Your task to perform on an android device: open app "Mercado Libre" (install if not already installed) and go to login screen Image 0: 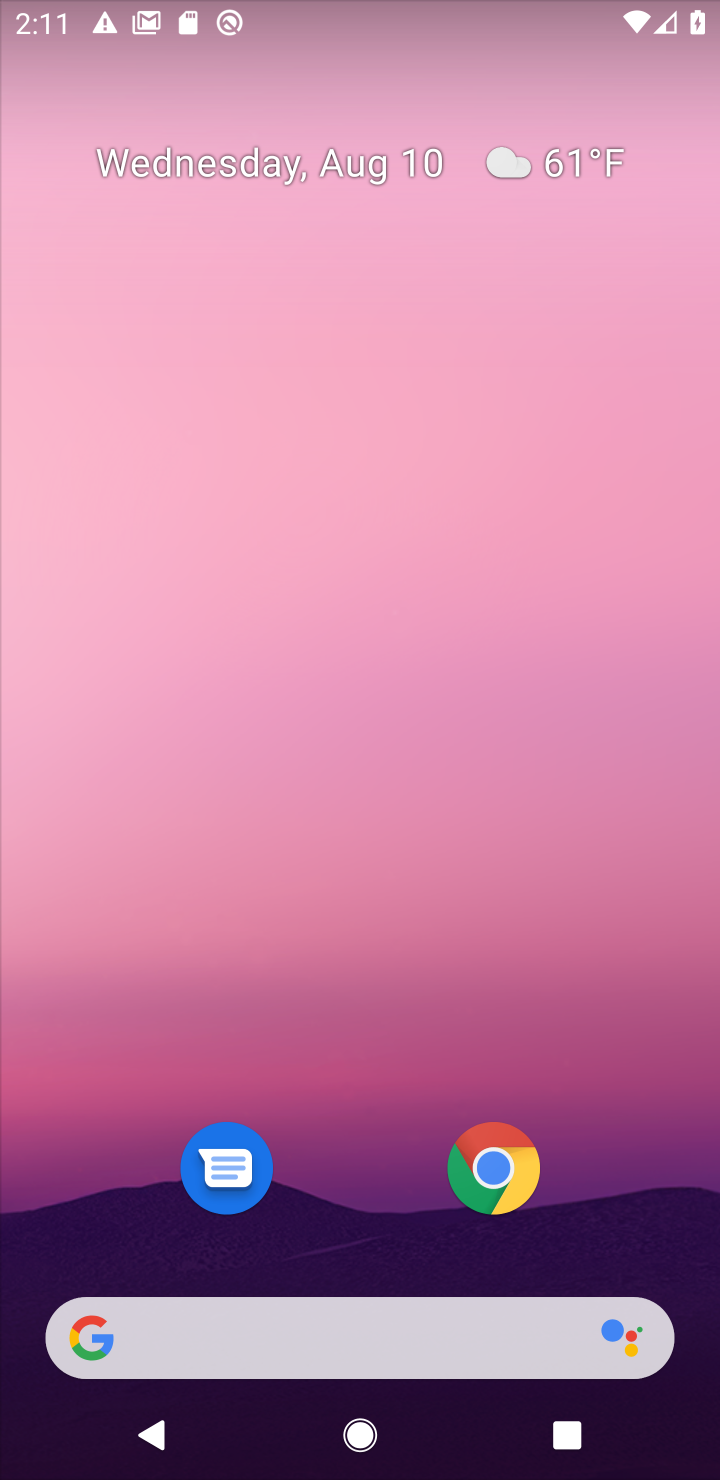
Step 0: drag from (292, 1336) to (189, 322)
Your task to perform on an android device: open app "Mercado Libre" (install if not already installed) and go to login screen Image 1: 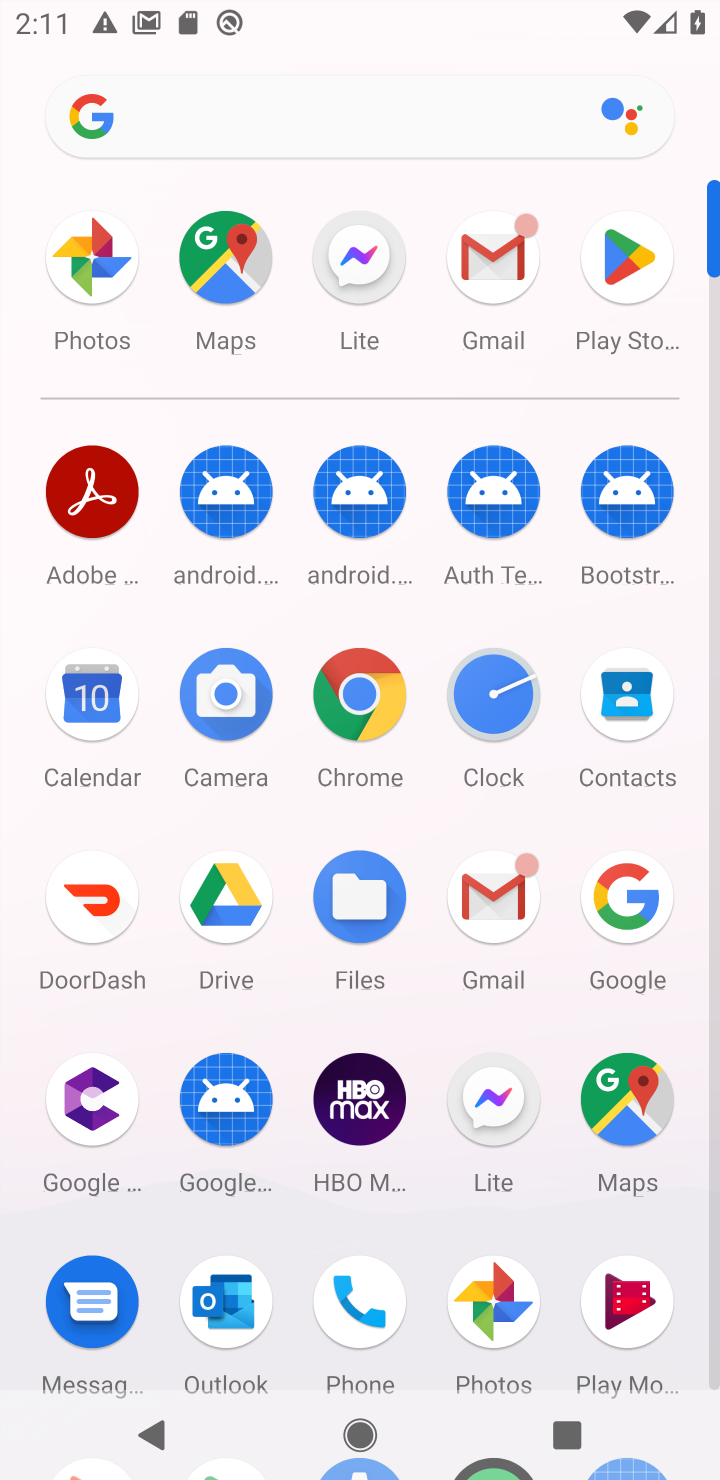
Step 1: click (630, 265)
Your task to perform on an android device: open app "Mercado Libre" (install if not already installed) and go to login screen Image 2: 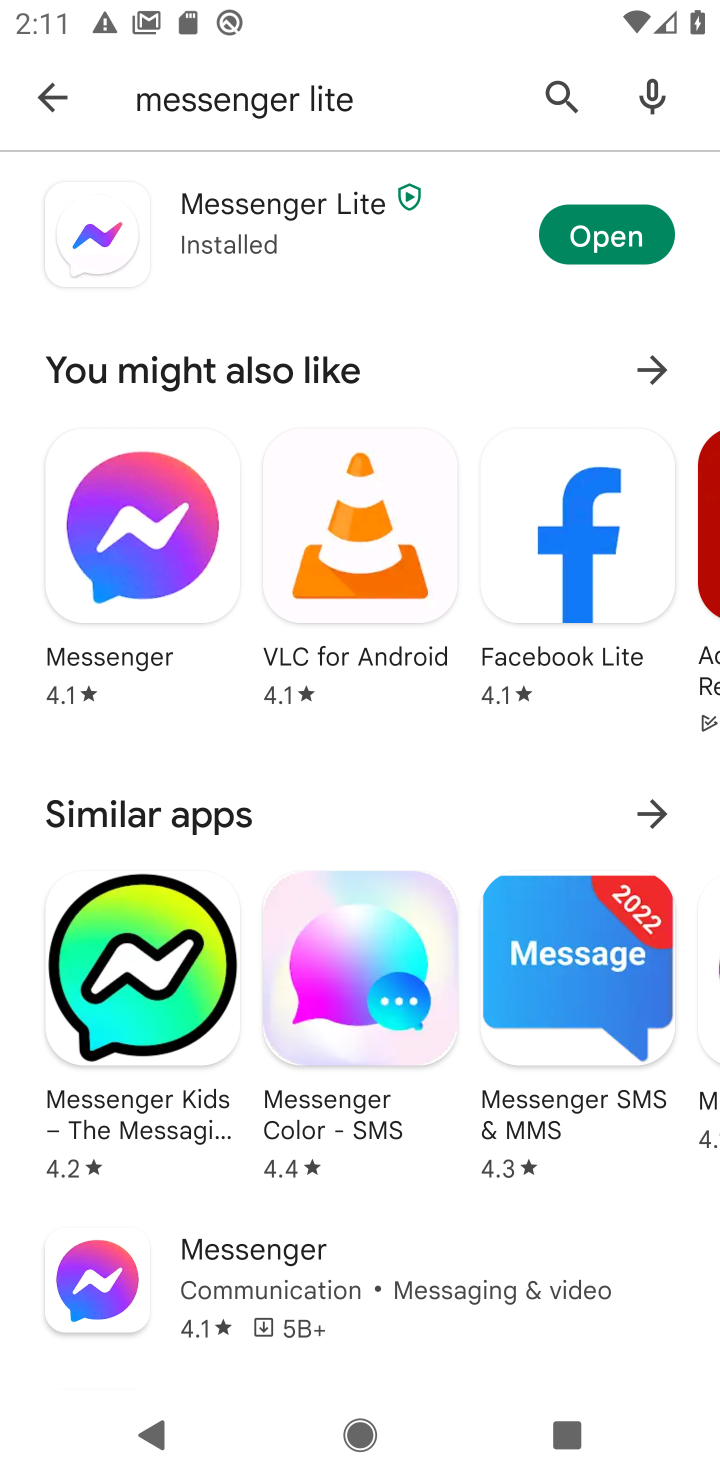
Step 2: click (555, 91)
Your task to perform on an android device: open app "Mercado Libre" (install if not already installed) and go to login screen Image 3: 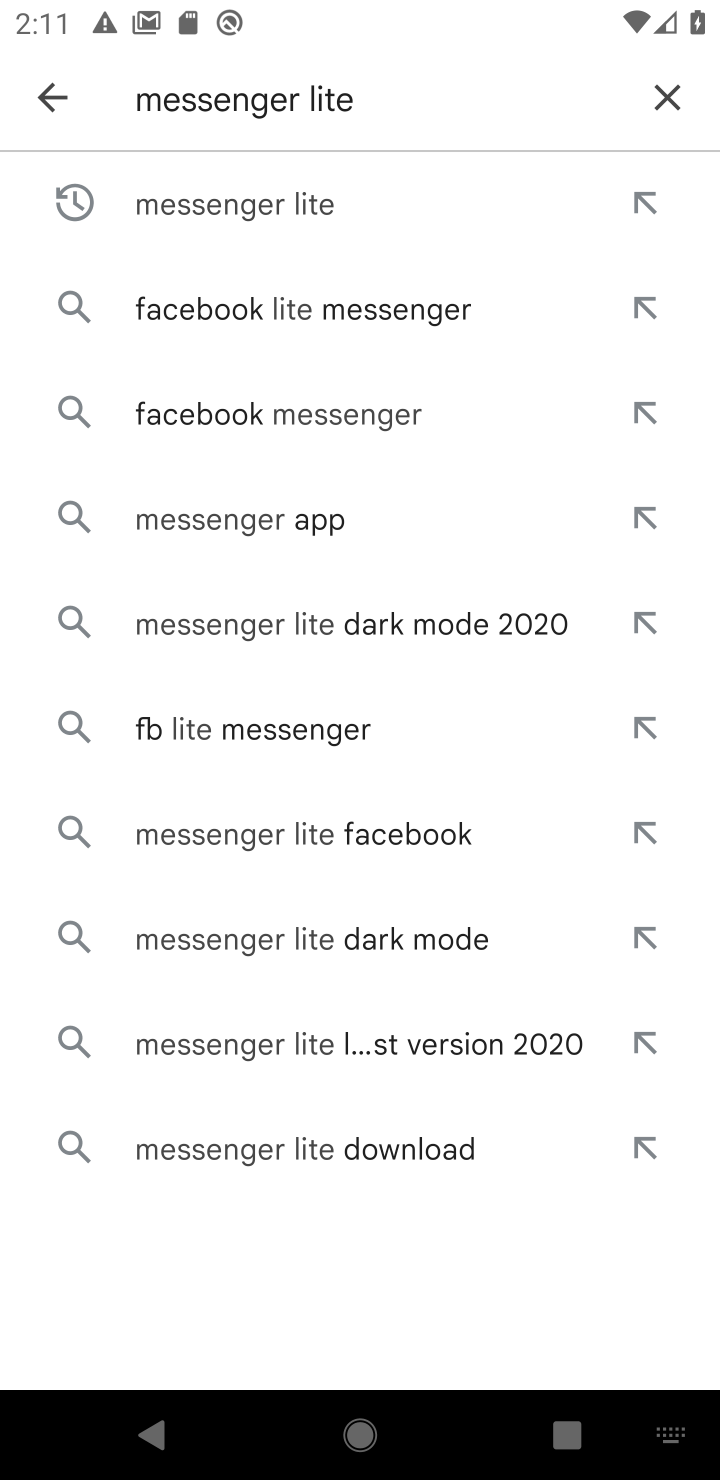
Step 3: click (656, 92)
Your task to perform on an android device: open app "Mercado Libre" (install if not already installed) and go to login screen Image 4: 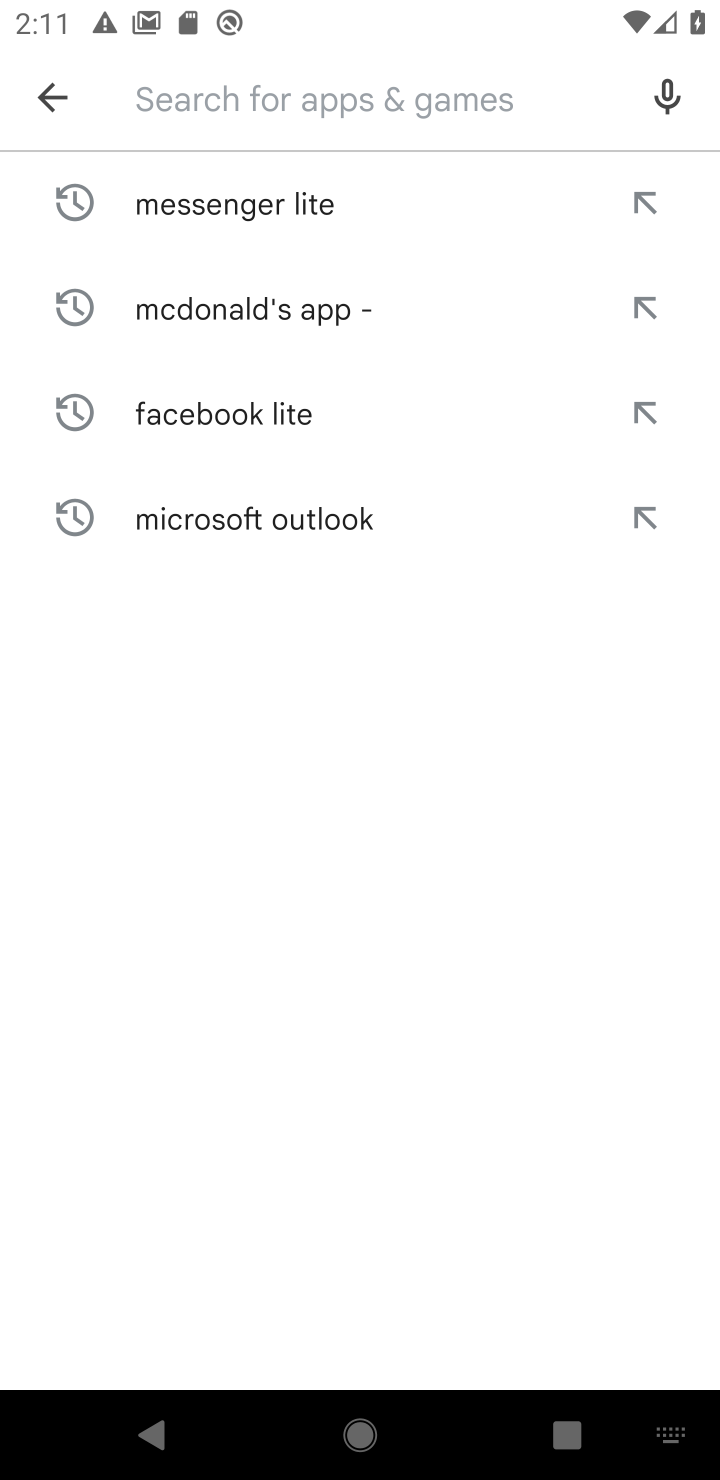
Step 4: click (361, 107)
Your task to perform on an android device: open app "Mercado Libre" (install if not already installed) and go to login screen Image 5: 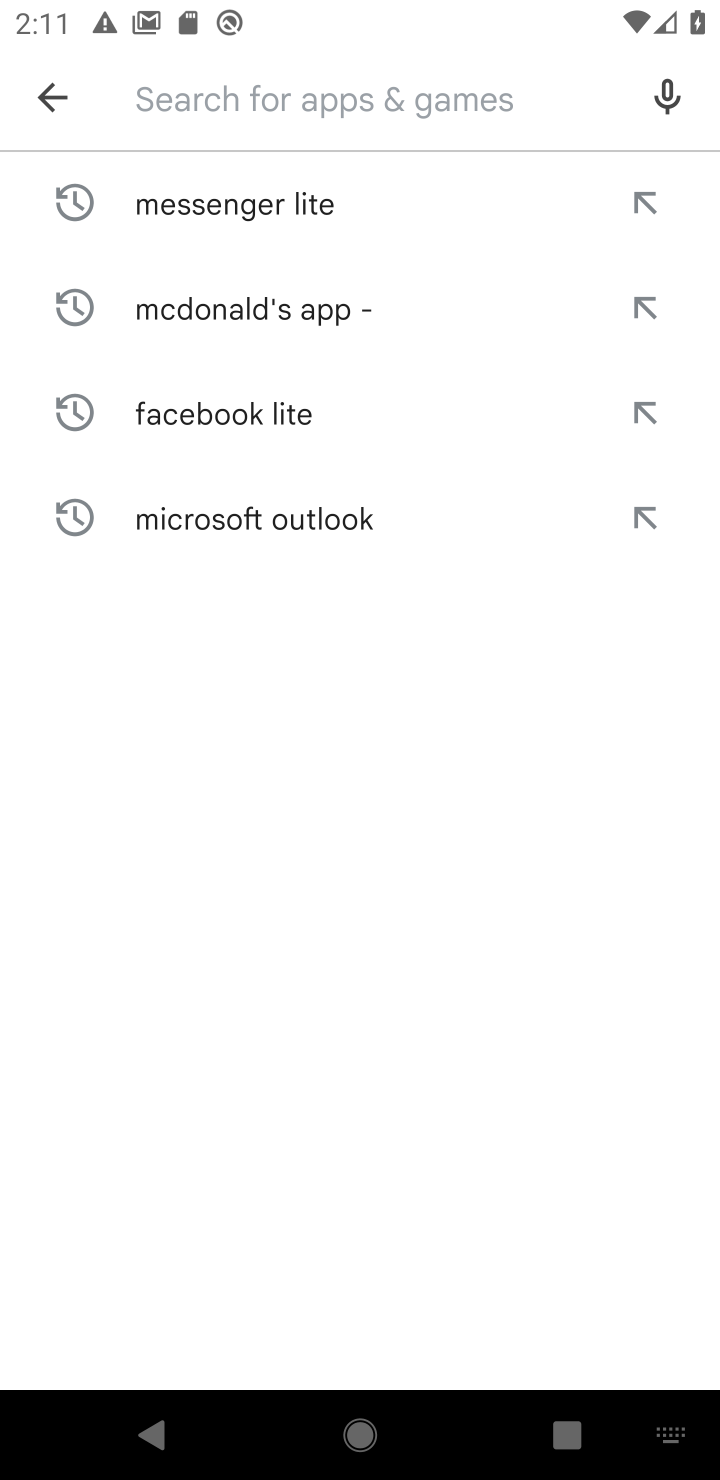
Step 5: type "Mercado Libre"
Your task to perform on an android device: open app "Mercado Libre" (install if not already installed) and go to login screen Image 6: 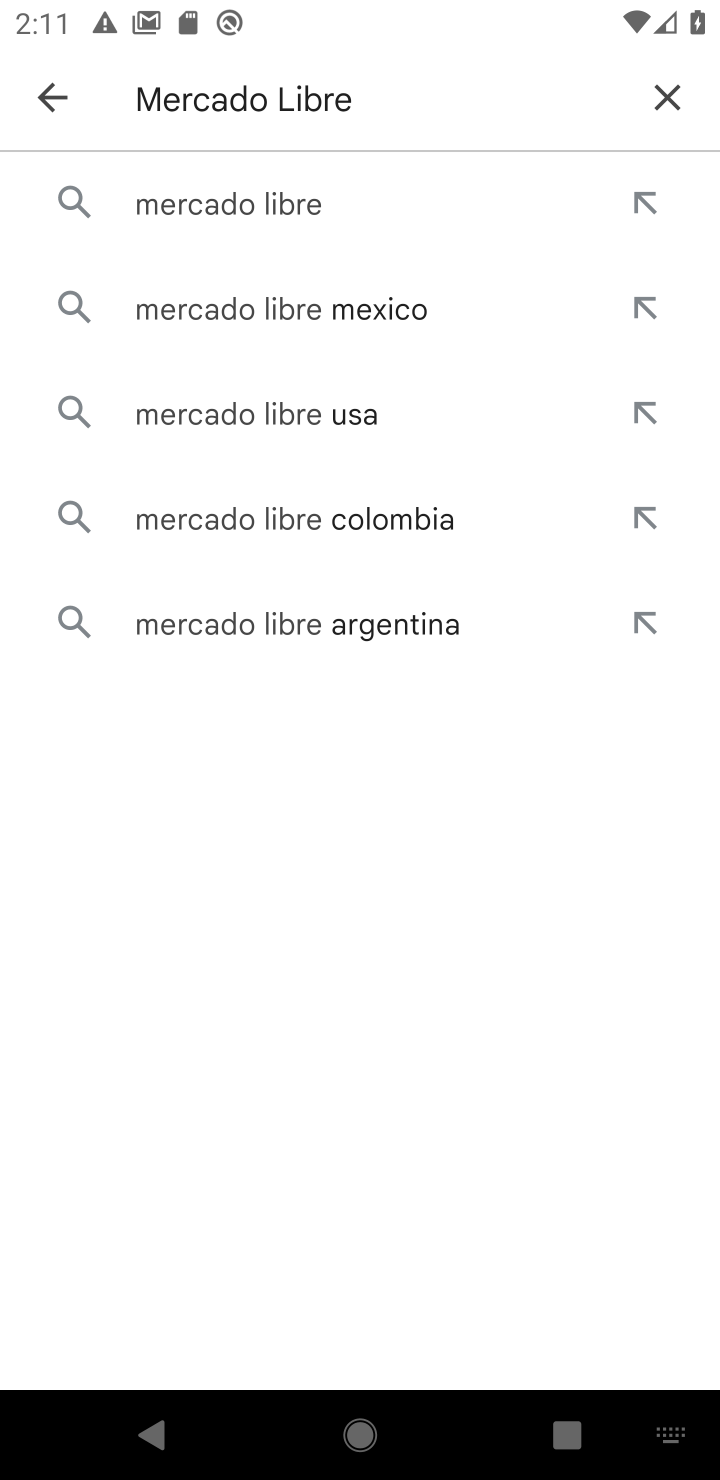
Step 6: click (264, 217)
Your task to perform on an android device: open app "Mercado Libre" (install if not already installed) and go to login screen Image 7: 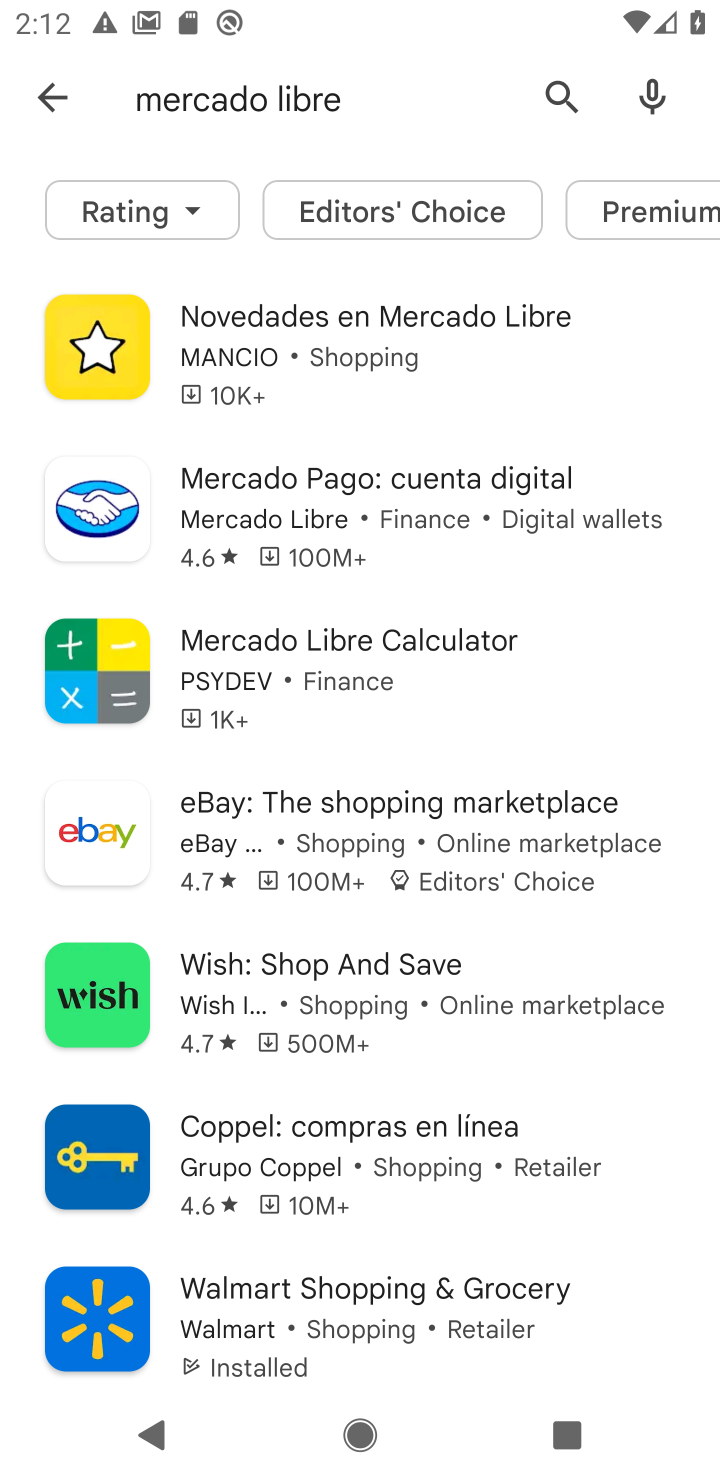
Step 7: task complete